Your task to perform on an android device: Open Wikipedia Image 0: 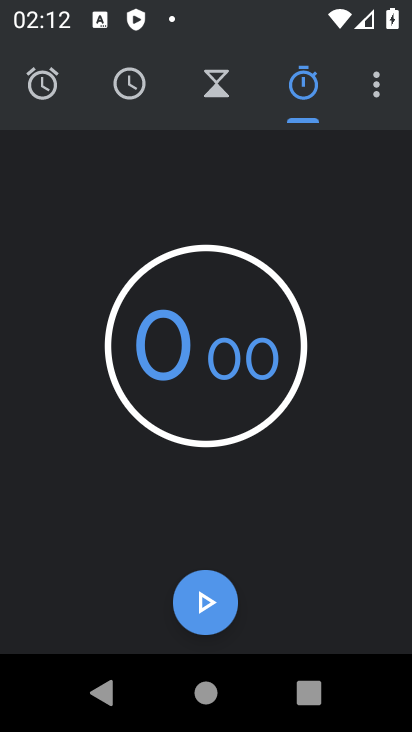
Step 0: press home button
Your task to perform on an android device: Open Wikipedia Image 1: 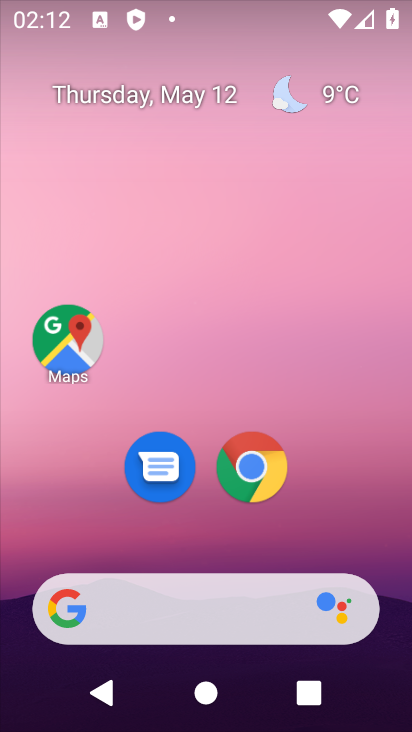
Step 1: drag from (272, 524) to (300, 189)
Your task to perform on an android device: Open Wikipedia Image 2: 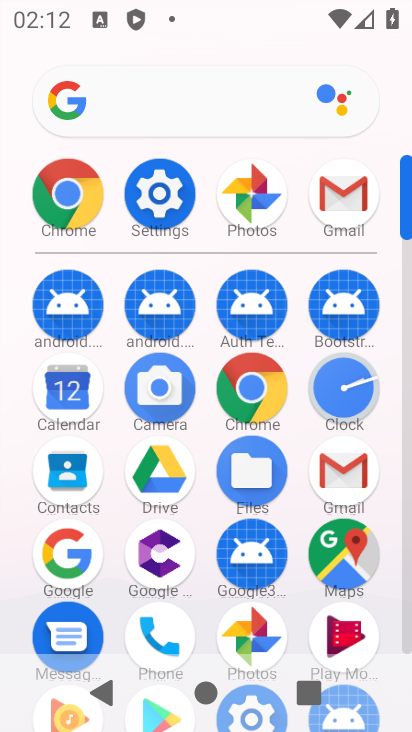
Step 2: click (72, 189)
Your task to perform on an android device: Open Wikipedia Image 3: 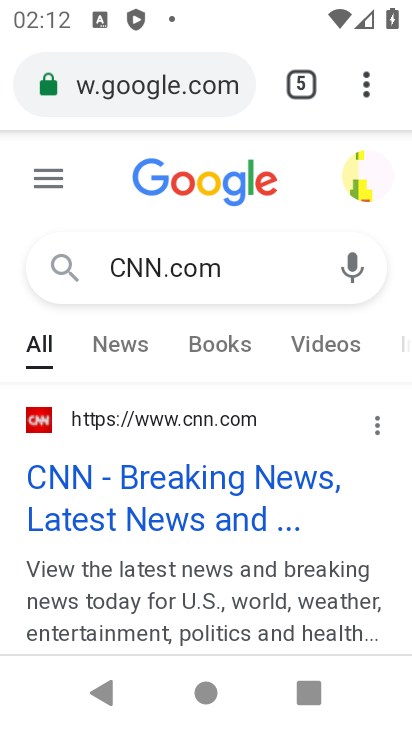
Step 3: click (350, 82)
Your task to perform on an android device: Open Wikipedia Image 4: 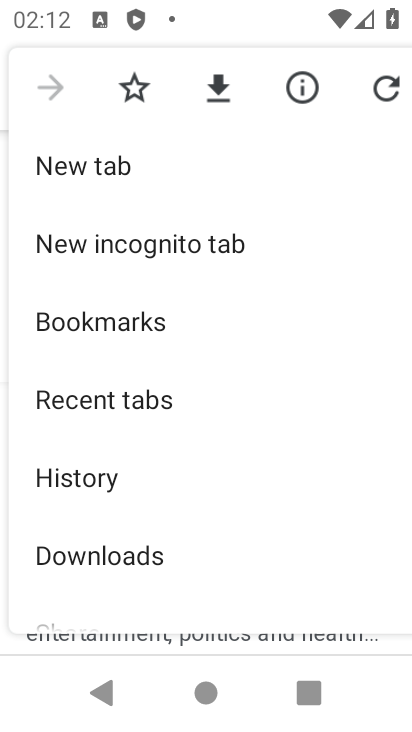
Step 4: click (136, 178)
Your task to perform on an android device: Open Wikipedia Image 5: 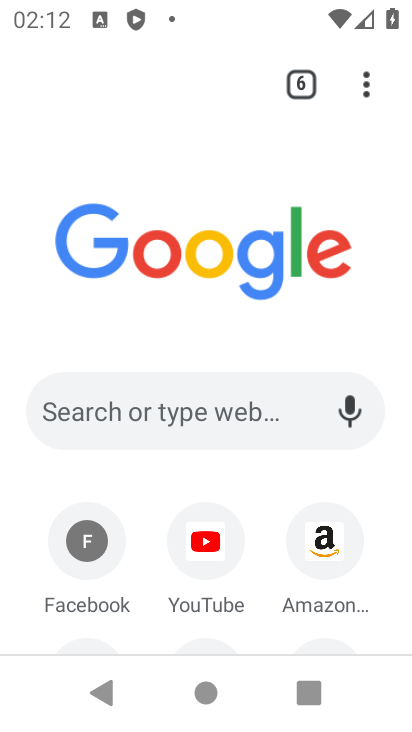
Step 5: drag from (165, 544) to (218, 175)
Your task to perform on an android device: Open Wikipedia Image 6: 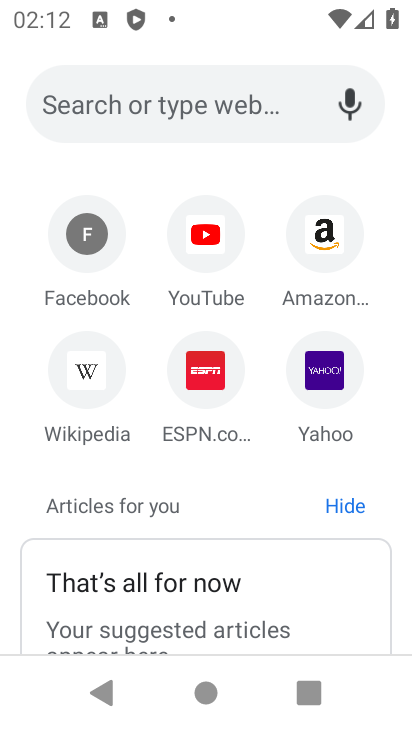
Step 6: click (97, 361)
Your task to perform on an android device: Open Wikipedia Image 7: 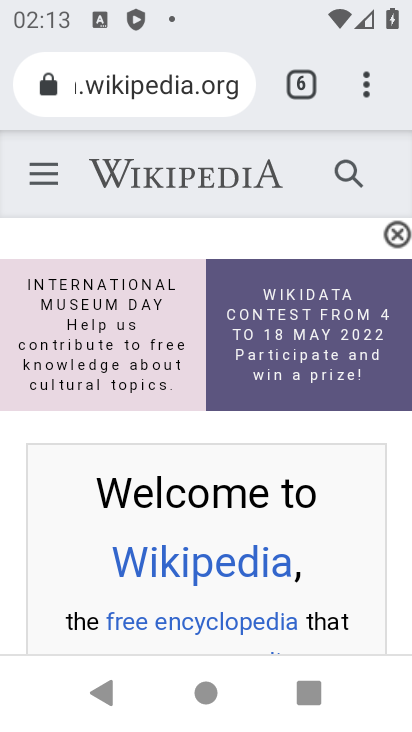
Step 7: task complete